Your task to perform on an android device: set default search engine in the chrome app Image 0: 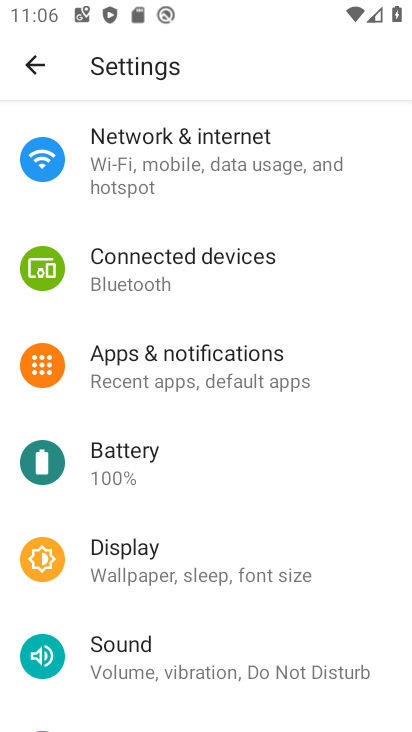
Step 0: press home button
Your task to perform on an android device: set default search engine in the chrome app Image 1: 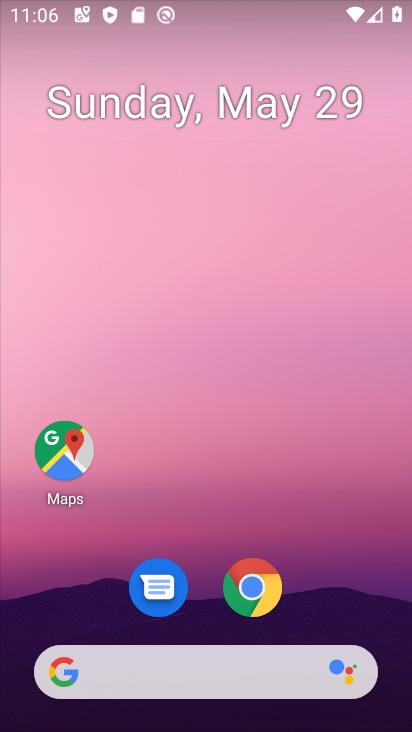
Step 1: click (259, 585)
Your task to perform on an android device: set default search engine in the chrome app Image 2: 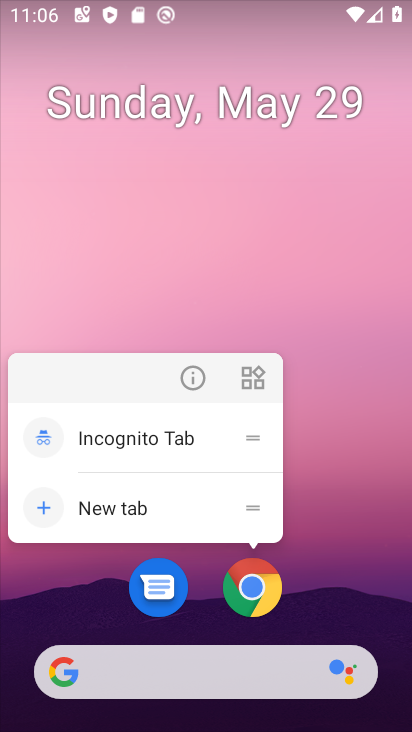
Step 2: click (258, 583)
Your task to perform on an android device: set default search engine in the chrome app Image 3: 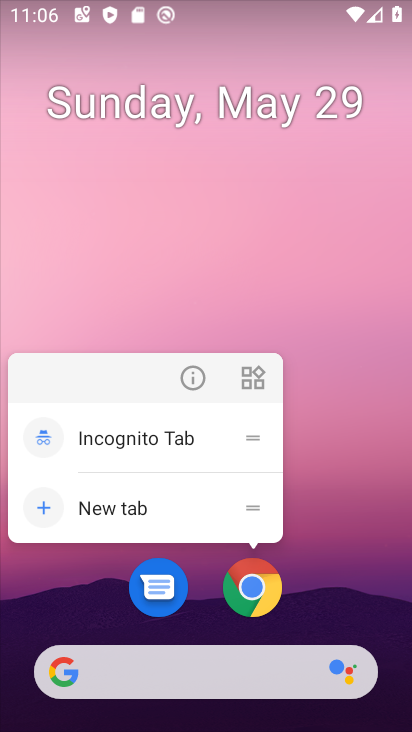
Step 3: click (250, 587)
Your task to perform on an android device: set default search engine in the chrome app Image 4: 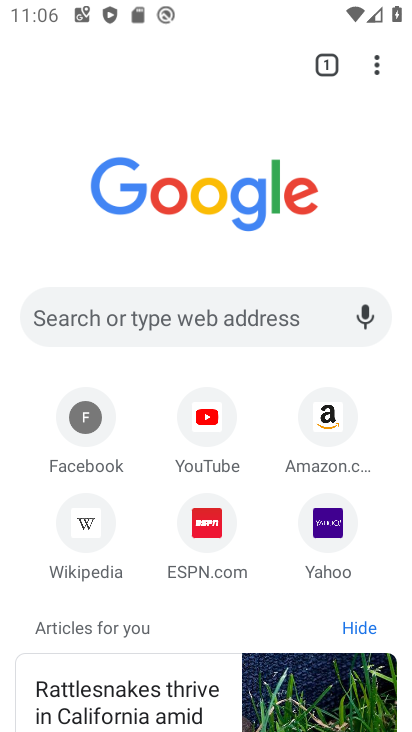
Step 4: drag from (387, 74) to (159, 524)
Your task to perform on an android device: set default search engine in the chrome app Image 5: 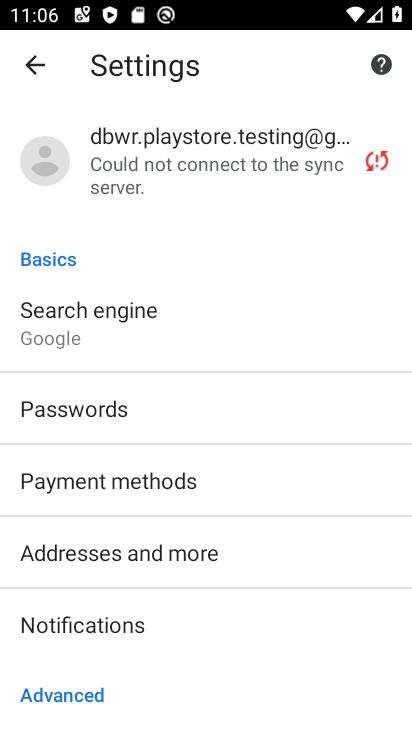
Step 5: click (132, 359)
Your task to perform on an android device: set default search engine in the chrome app Image 6: 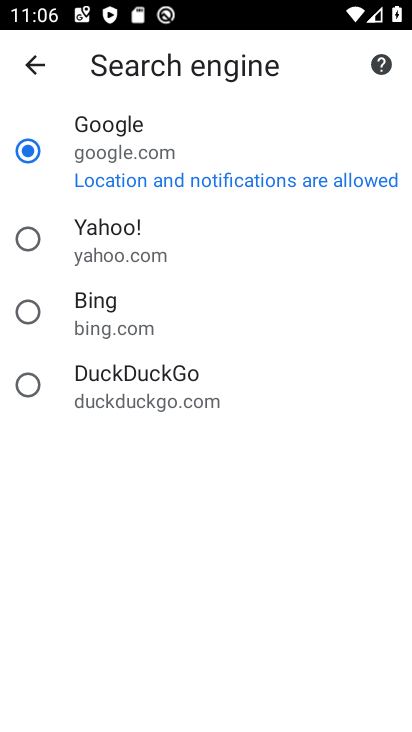
Step 6: task complete